Your task to perform on an android device: What's the weather today? Image 0: 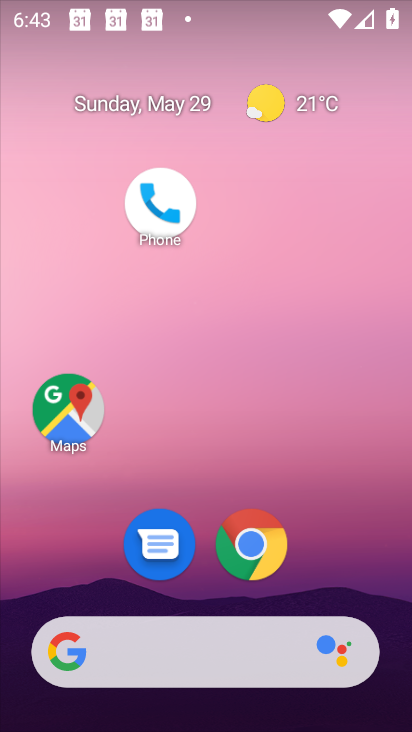
Step 0: click (267, 107)
Your task to perform on an android device: What's the weather today? Image 1: 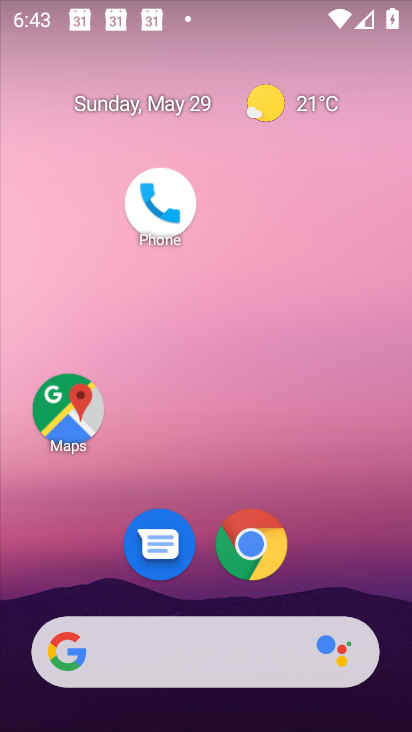
Step 1: click (169, 651)
Your task to perform on an android device: What's the weather today? Image 2: 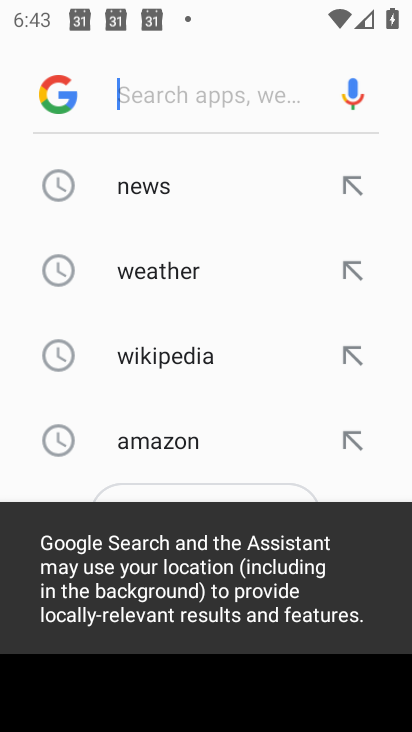
Step 2: click (167, 265)
Your task to perform on an android device: What's the weather today? Image 3: 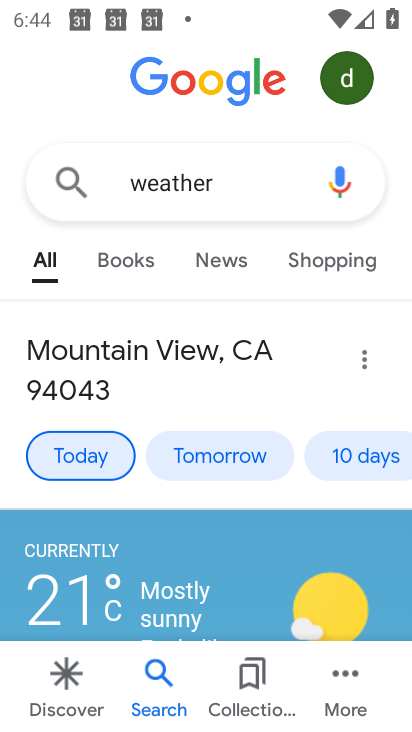
Step 3: task complete